Your task to perform on an android device: Show me the alarms in the clock app Image 0: 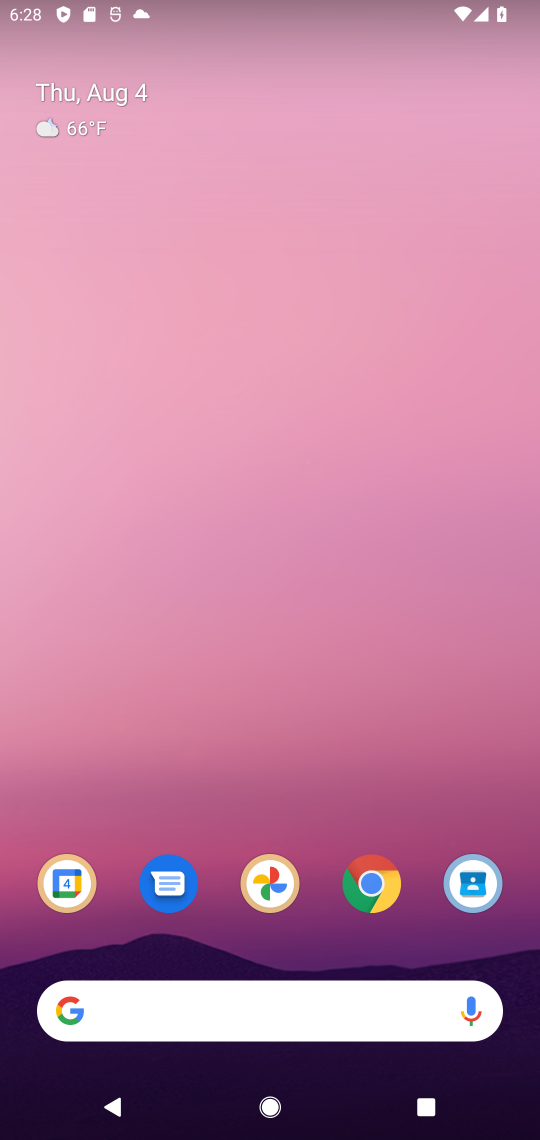
Step 0: drag from (193, 1060) to (381, 47)
Your task to perform on an android device: Show me the alarms in the clock app Image 1: 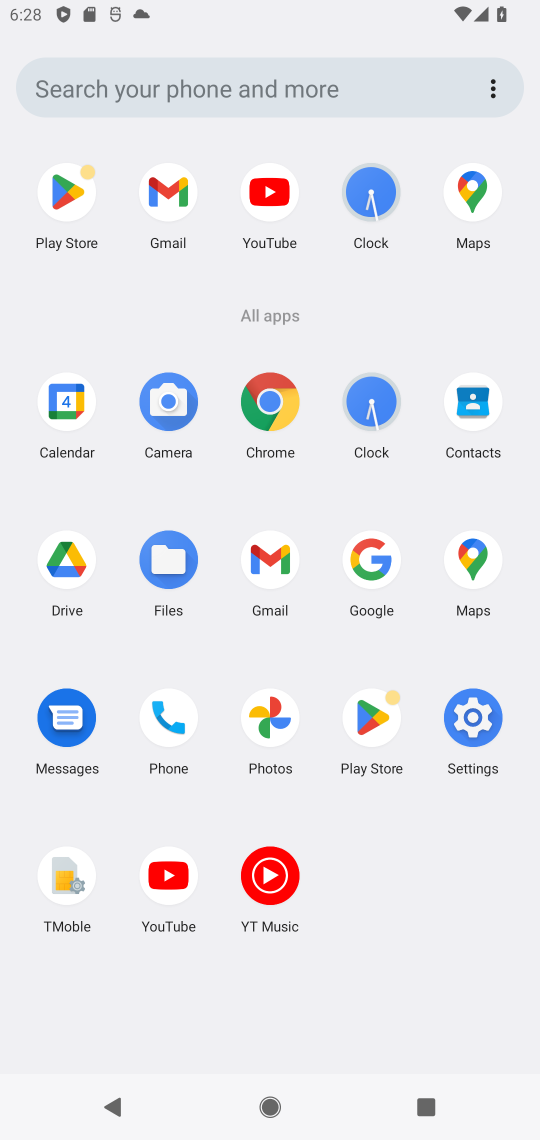
Step 1: click (381, 403)
Your task to perform on an android device: Show me the alarms in the clock app Image 2: 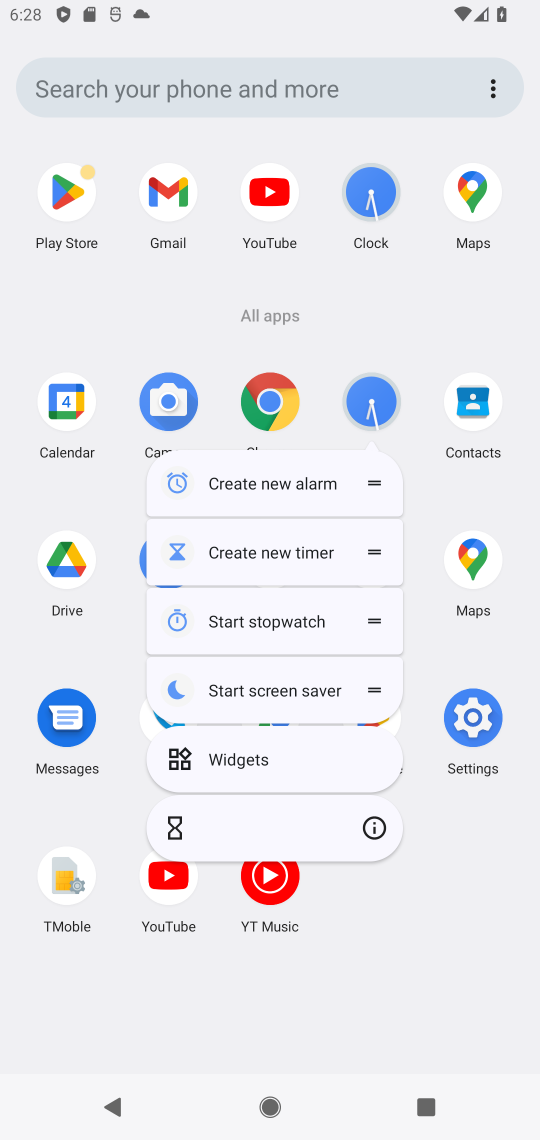
Step 2: click (381, 403)
Your task to perform on an android device: Show me the alarms in the clock app Image 3: 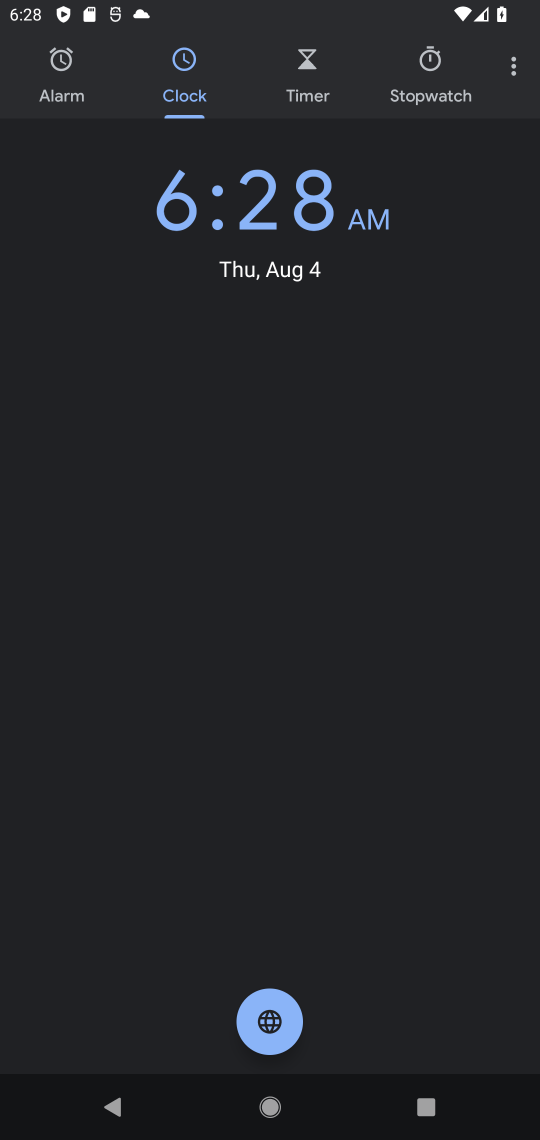
Step 3: click (50, 75)
Your task to perform on an android device: Show me the alarms in the clock app Image 4: 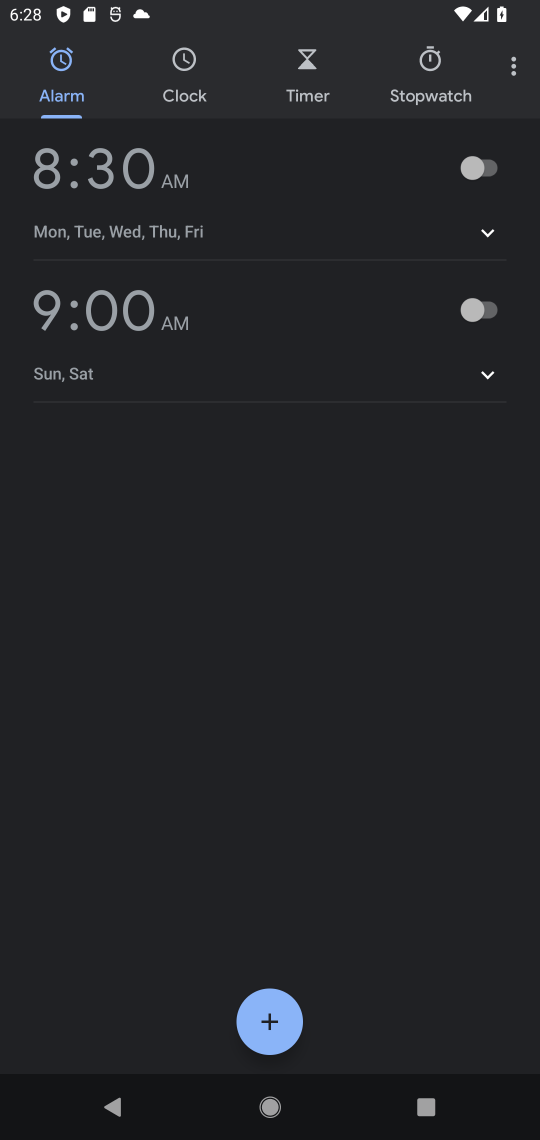
Step 4: task complete